Your task to perform on an android device: change timer sound Image 0: 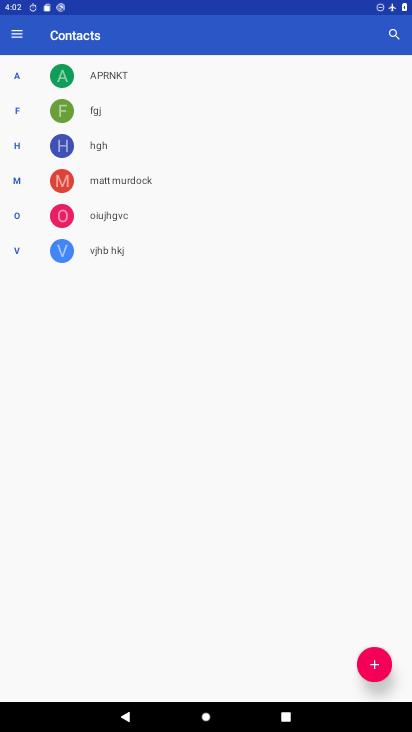
Step 0: press home button
Your task to perform on an android device: change timer sound Image 1: 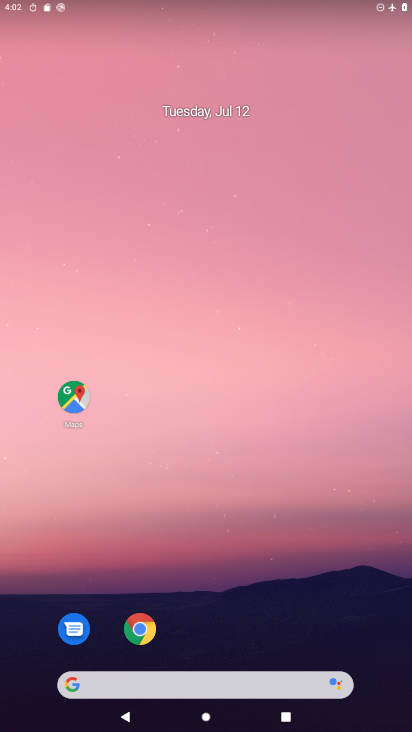
Step 1: drag from (287, 604) to (346, 37)
Your task to perform on an android device: change timer sound Image 2: 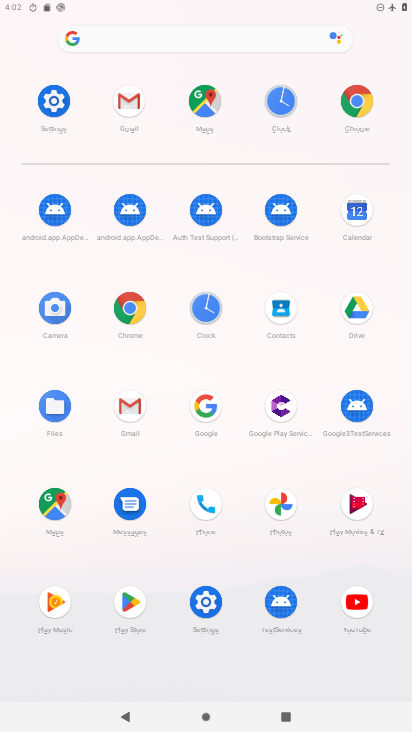
Step 2: click (49, 101)
Your task to perform on an android device: change timer sound Image 3: 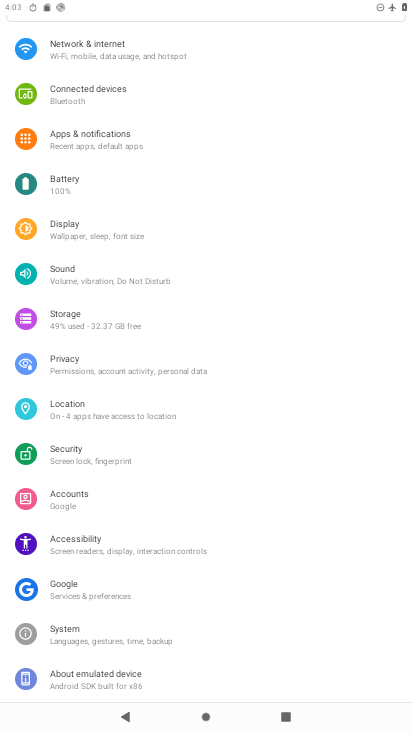
Step 3: press home button
Your task to perform on an android device: change timer sound Image 4: 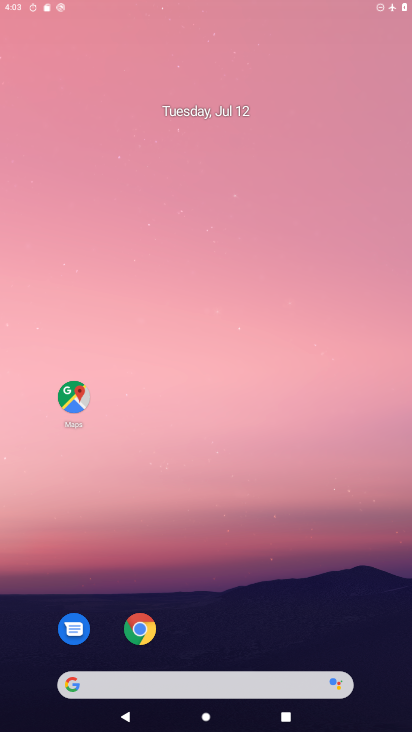
Step 4: drag from (281, 588) to (346, 130)
Your task to perform on an android device: change timer sound Image 5: 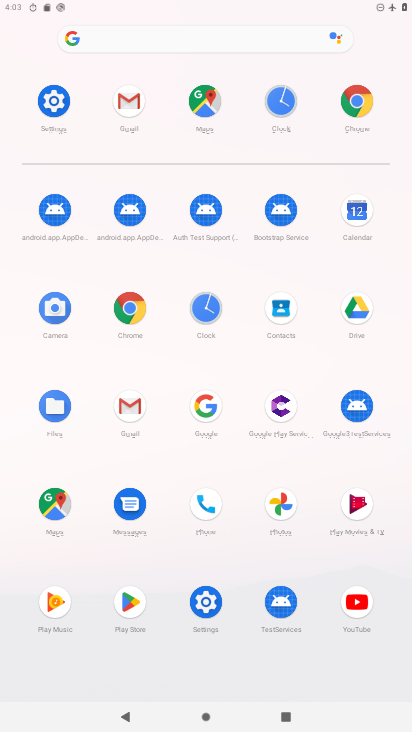
Step 5: click (204, 298)
Your task to perform on an android device: change timer sound Image 6: 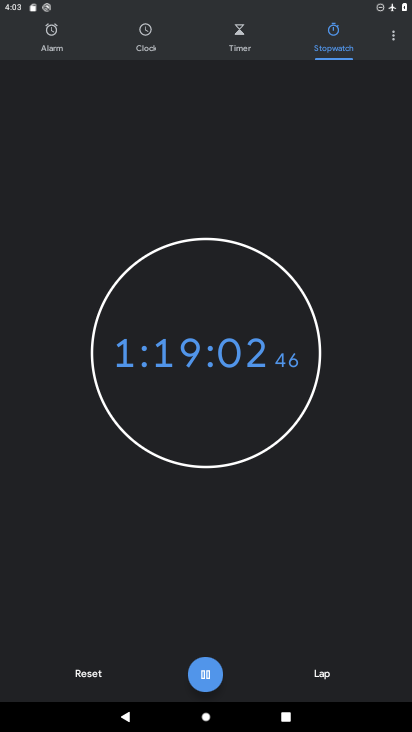
Step 6: click (392, 38)
Your task to perform on an android device: change timer sound Image 7: 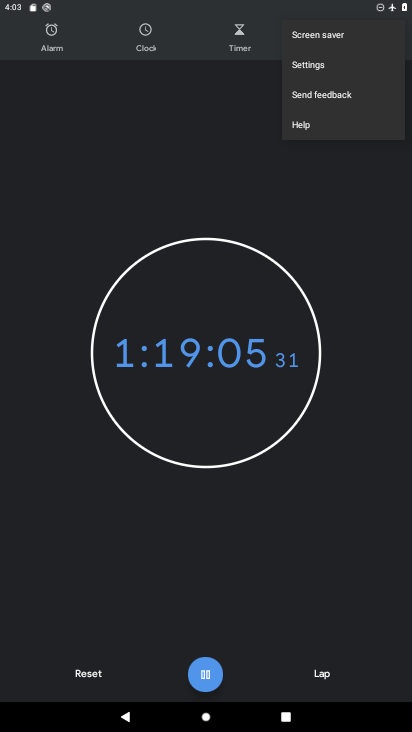
Step 7: click (311, 59)
Your task to perform on an android device: change timer sound Image 8: 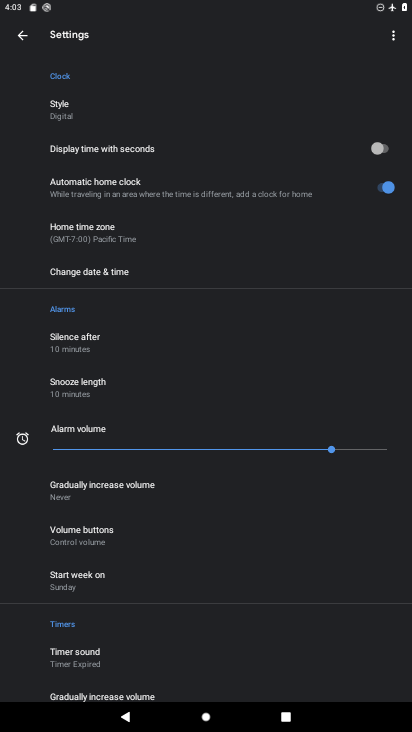
Step 8: drag from (144, 620) to (195, 356)
Your task to perform on an android device: change timer sound Image 9: 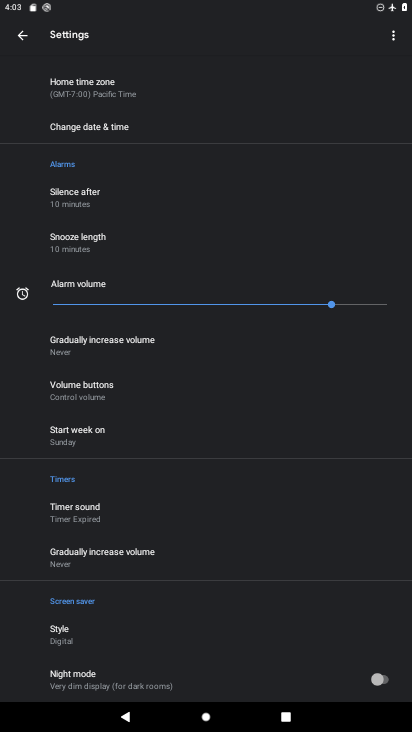
Step 9: click (72, 516)
Your task to perform on an android device: change timer sound Image 10: 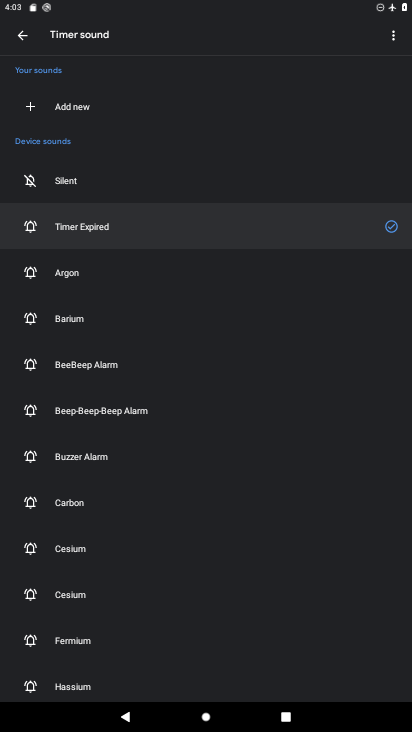
Step 10: click (81, 269)
Your task to perform on an android device: change timer sound Image 11: 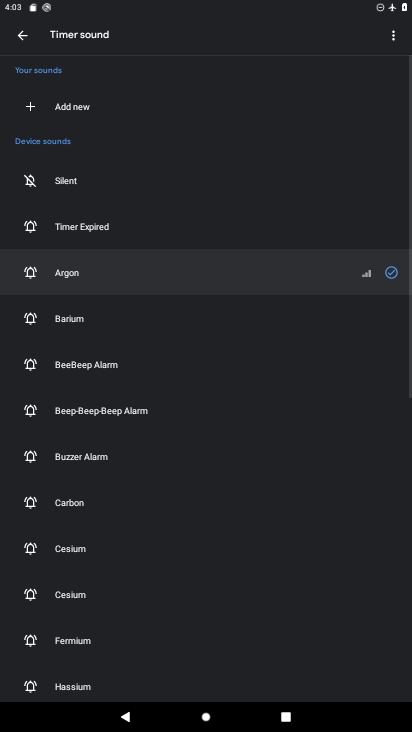
Step 11: click (394, 274)
Your task to perform on an android device: change timer sound Image 12: 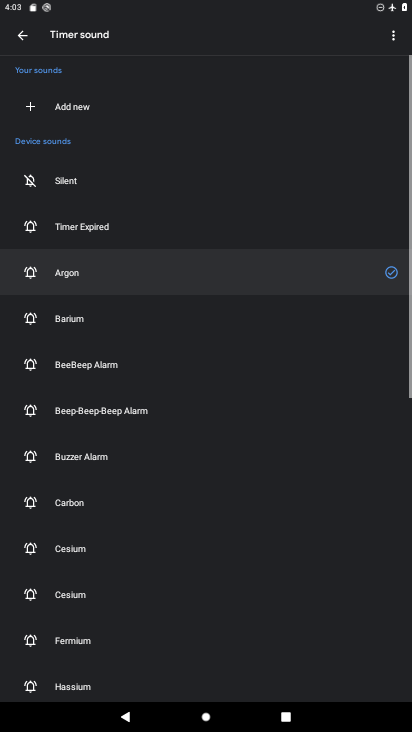
Step 12: task complete